Your task to perform on an android device: Go to privacy settings Image 0: 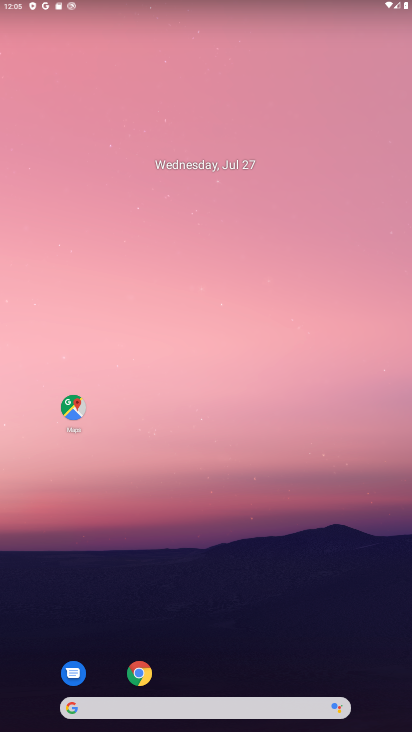
Step 0: drag from (240, 662) to (252, 3)
Your task to perform on an android device: Go to privacy settings Image 1: 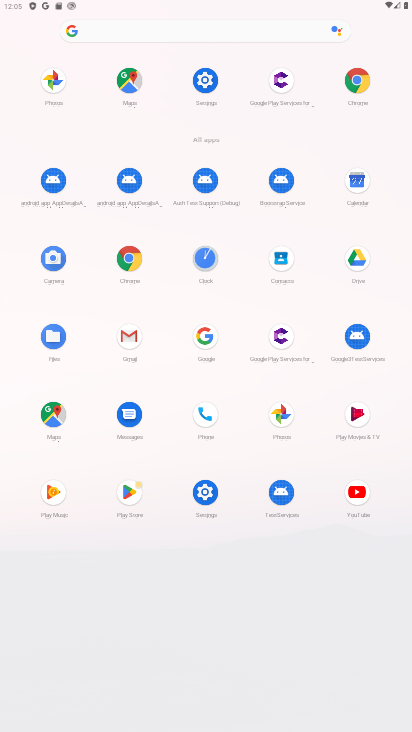
Step 1: click (212, 95)
Your task to perform on an android device: Go to privacy settings Image 2: 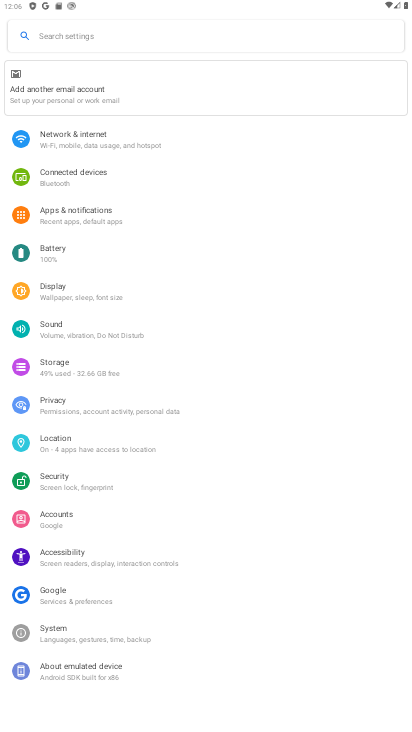
Step 2: click (53, 409)
Your task to perform on an android device: Go to privacy settings Image 3: 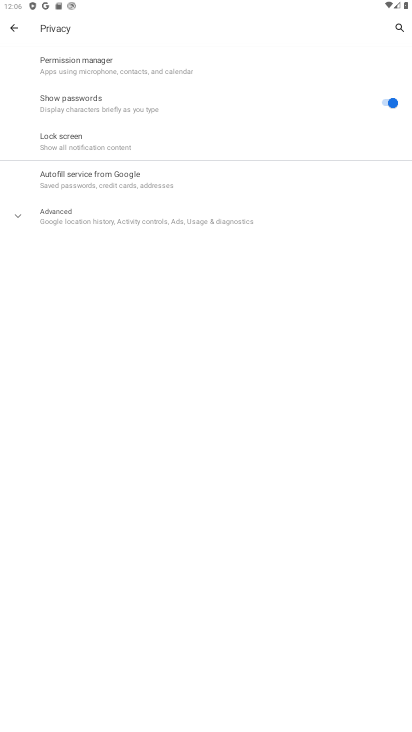
Step 3: task complete